Your task to perform on an android device: Go to location settings Image 0: 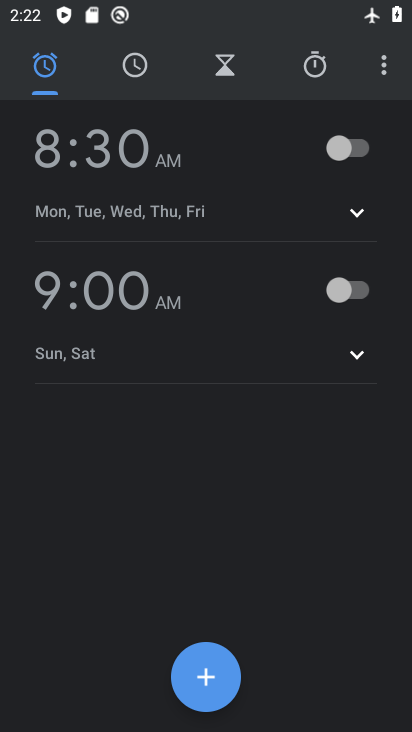
Step 0: press home button
Your task to perform on an android device: Go to location settings Image 1: 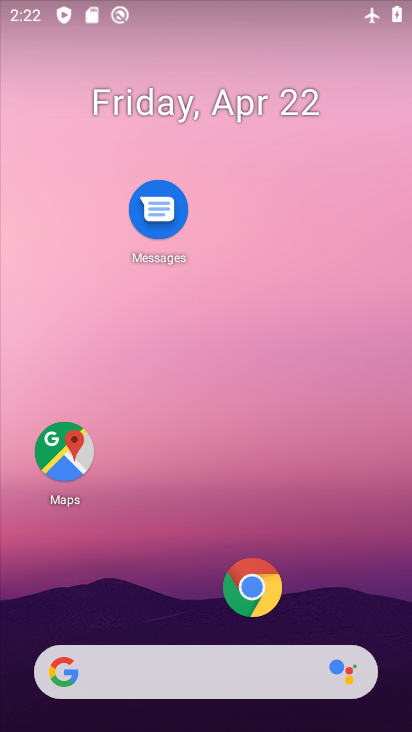
Step 1: drag from (213, 320) to (237, 92)
Your task to perform on an android device: Go to location settings Image 2: 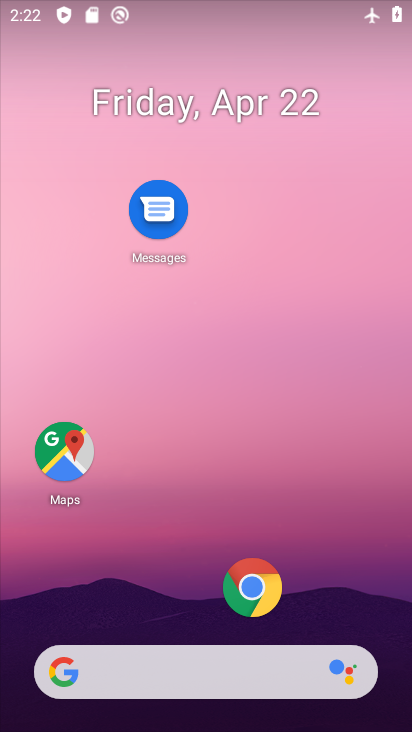
Step 2: drag from (160, 503) to (224, 78)
Your task to perform on an android device: Go to location settings Image 3: 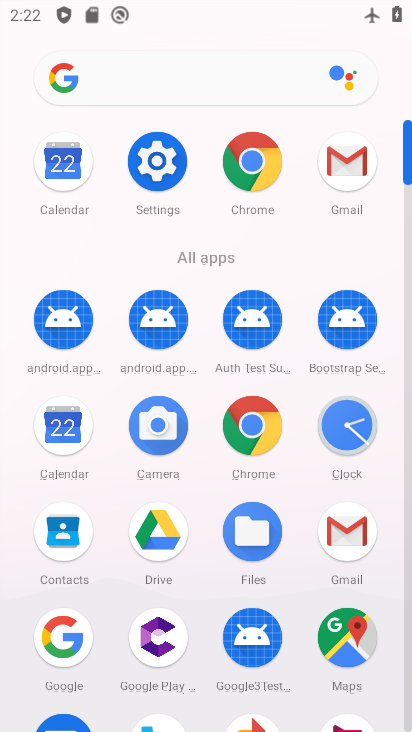
Step 3: click (171, 163)
Your task to perform on an android device: Go to location settings Image 4: 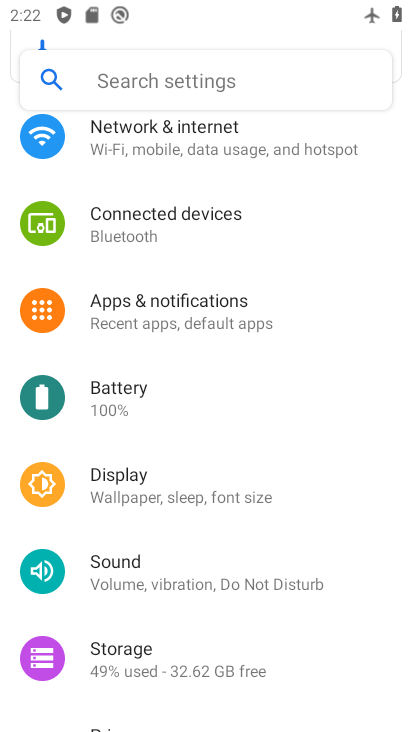
Step 4: drag from (179, 507) to (208, 121)
Your task to perform on an android device: Go to location settings Image 5: 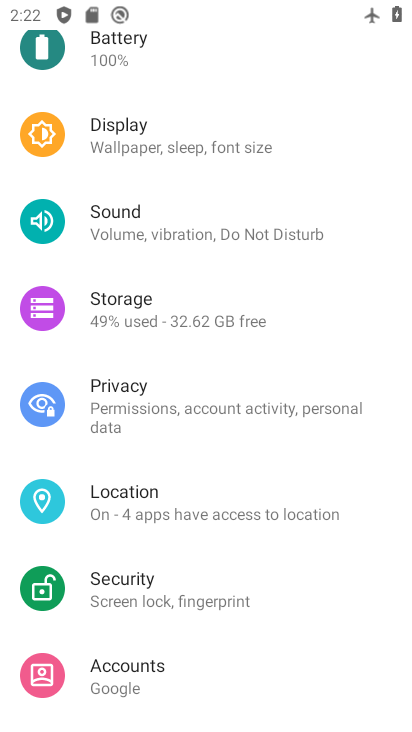
Step 5: click (193, 509)
Your task to perform on an android device: Go to location settings Image 6: 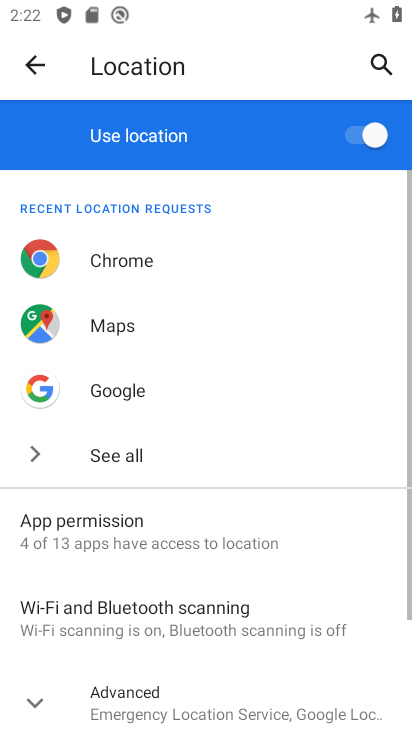
Step 6: task complete